Your task to perform on an android device: change the clock display to analog Image 0: 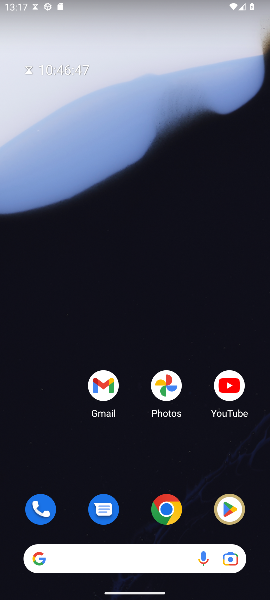
Step 0: press home button
Your task to perform on an android device: change the clock display to analog Image 1: 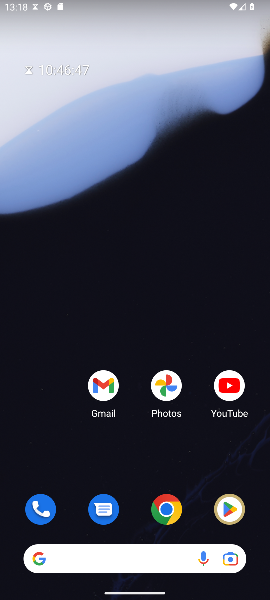
Step 1: drag from (152, 518) to (191, 91)
Your task to perform on an android device: change the clock display to analog Image 2: 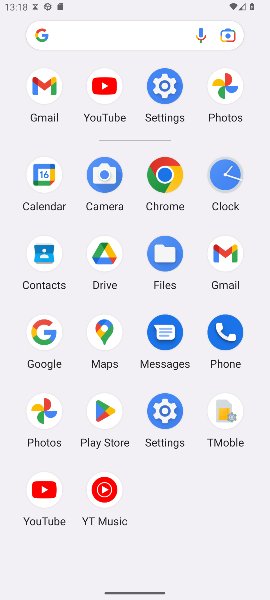
Step 2: click (216, 178)
Your task to perform on an android device: change the clock display to analog Image 3: 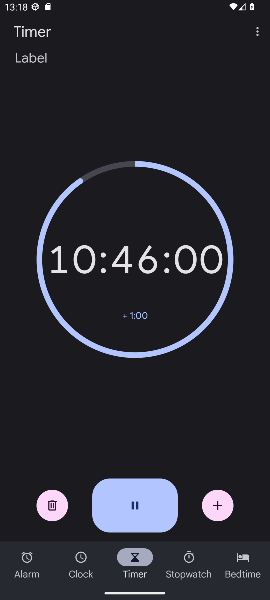
Step 3: click (264, 32)
Your task to perform on an android device: change the clock display to analog Image 4: 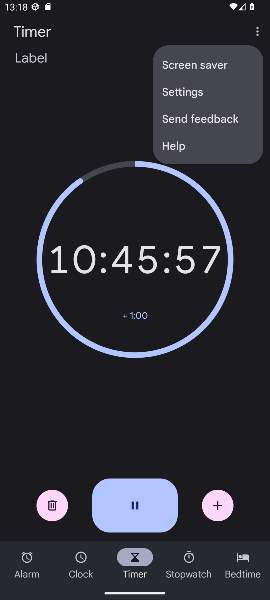
Step 4: click (179, 96)
Your task to perform on an android device: change the clock display to analog Image 5: 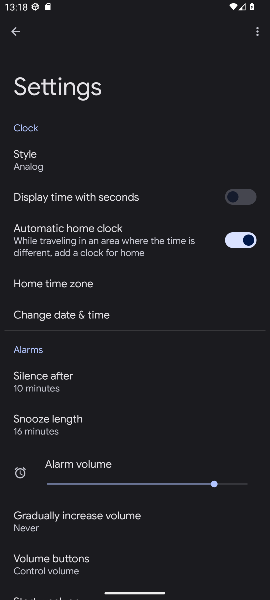
Step 5: click (26, 159)
Your task to perform on an android device: change the clock display to analog Image 6: 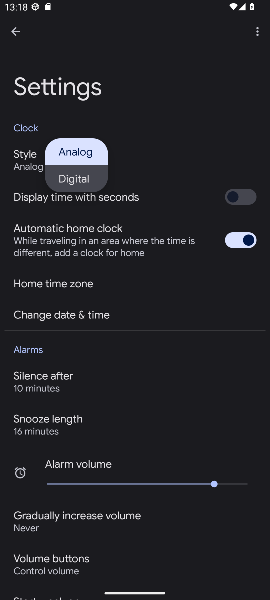
Step 6: click (86, 147)
Your task to perform on an android device: change the clock display to analog Image 7: 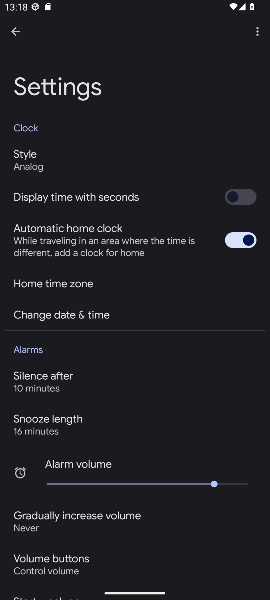
Step 7: task complete